Your task to perform on an android device: move an email to a new category in the gmail app Image 0: 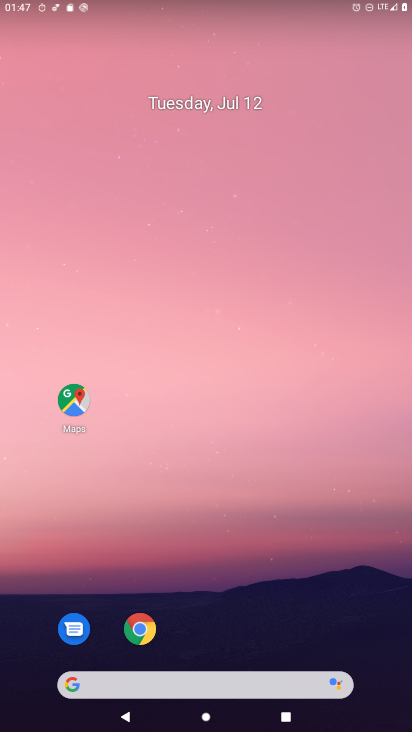
Step 0: drag from (47, 698) to (187, 341)
Your task to perform on an android device: move an email to a new category in the gmail app Image 1: 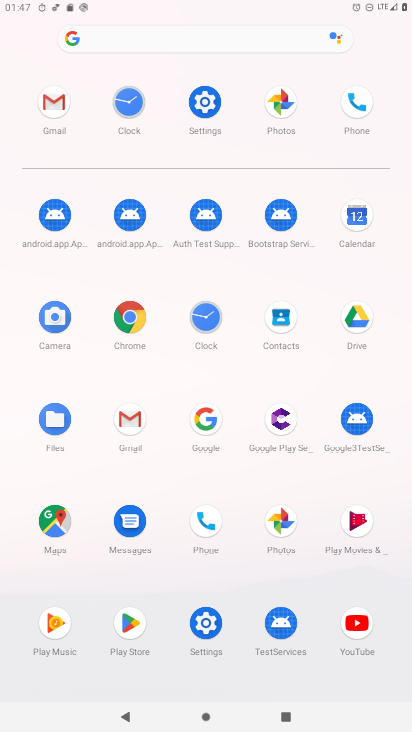
Step 1: click (56, 116)
Your task to perform on an android device: move an email to a new category in the gmail app Image 2: 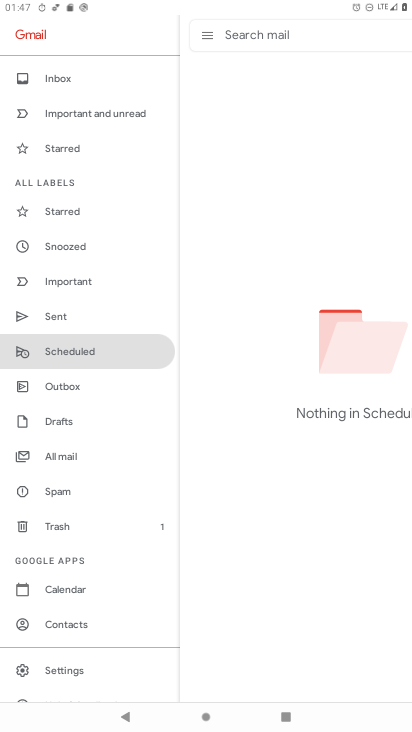
Step 2: click (86, 81)
Your task to perform on an android device: move an email to a new category in the gmail app Image 3: 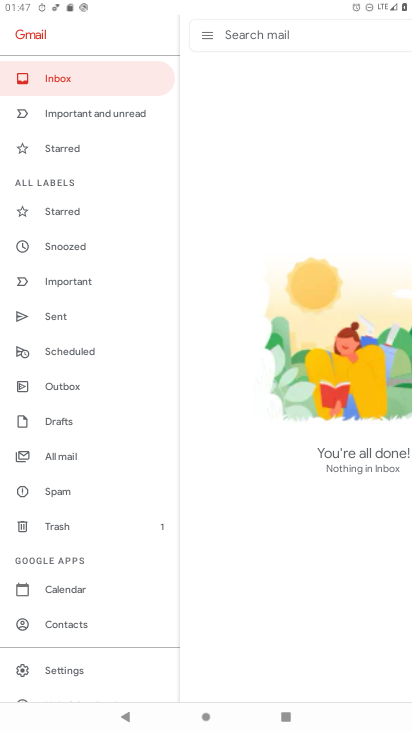
Step 3: task complete